Your task to perform on an android device: toggle notification dots Image 0: 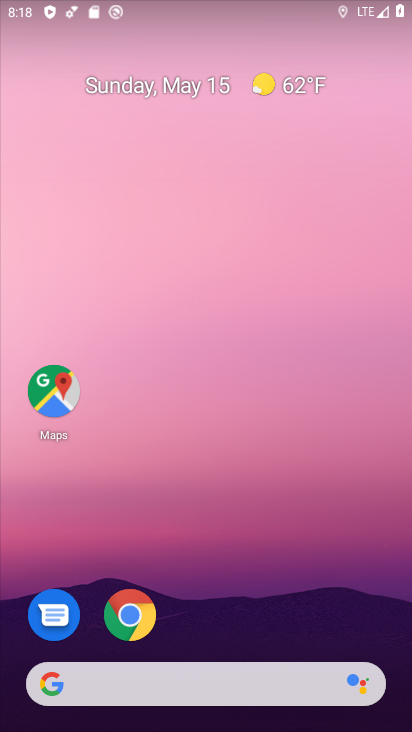
Step 0: drag from (202, 493) to (247, 71)
Your task to perform on an android device: toggle notification dots Image 1: 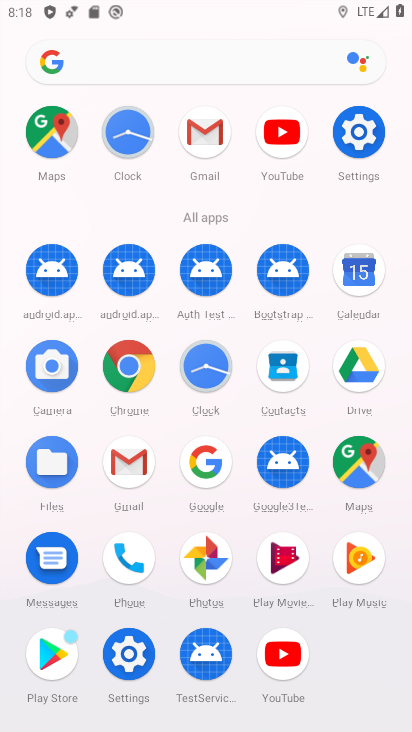
Step 1: click (359, 136)
Your task to perform on an android device: toggle notification dots Image 2: 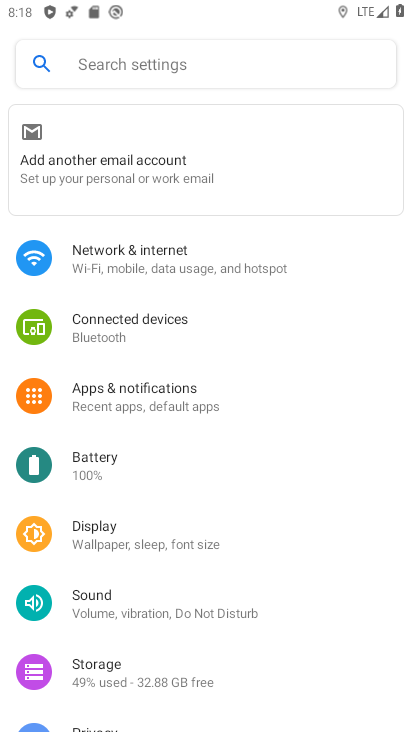
Step 2: drag from (148, 563) to (202, 208)
Your task to perform on an android device: toggle notification dots Image 3: 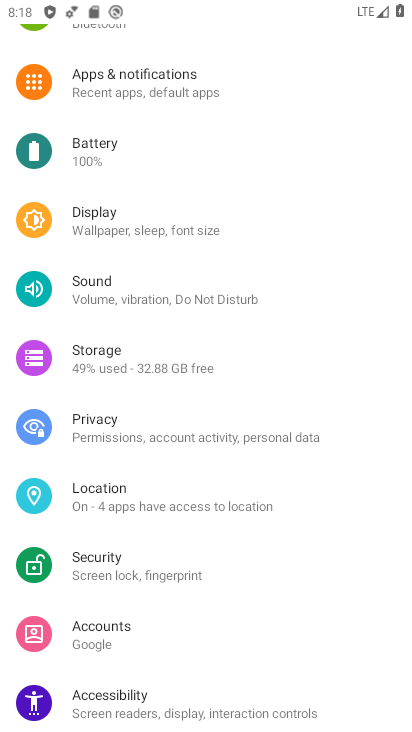
Step 3: click (200, 88)
Your task to perform on an android device: toggle notification dots Image 4: 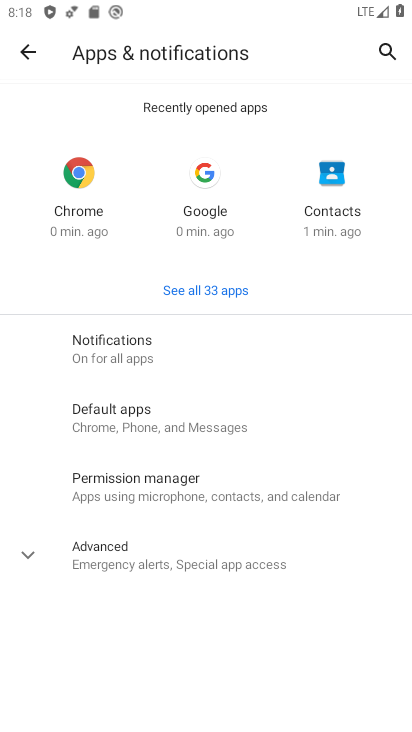
Step 4: click (156, 357)
Your task to perform on an android device: toggle notification dots Image 5: 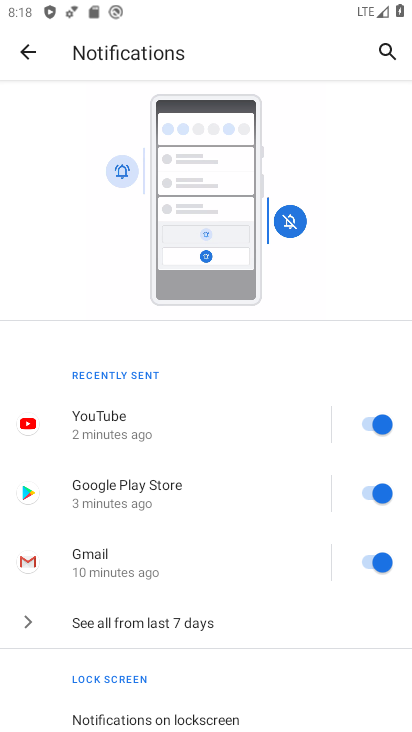
Step 5: drag from (171, 692) to (247, 245)
Your task to perform on an android device: toggle notification dots Image 6: 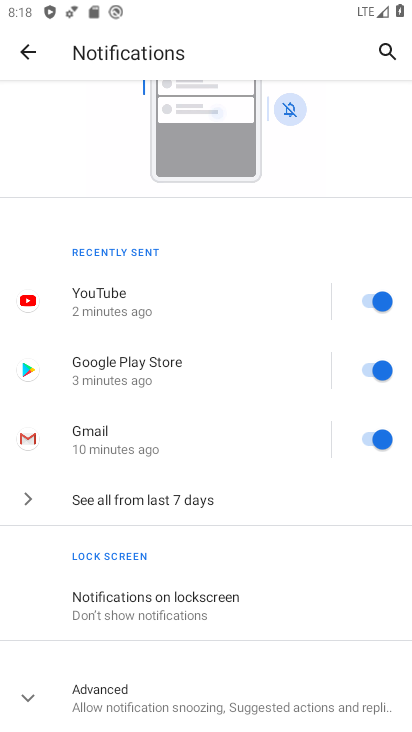
Step 6: click (136, 708)
Your task to perform on an android device: toggle notification dots Image 7: 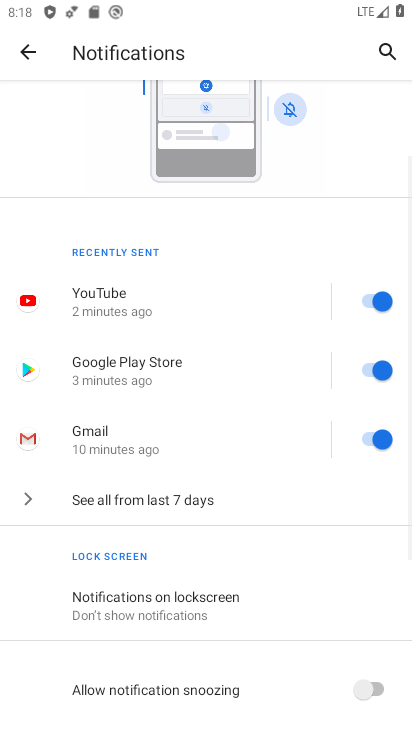
Step 7: drag from (233, 657) to (303, 171)
Your task to perform on an android device: toggle notification dots Image 8: 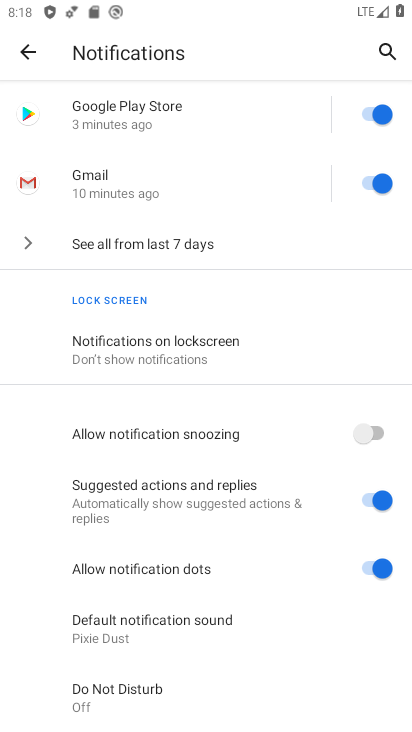
Step 8: click (377, 574)
Your task to perform on an android device: toggle notification dots Image 9: 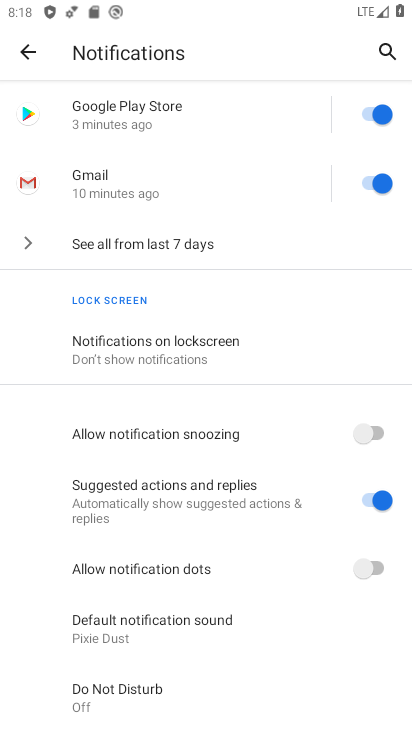
Step 9: task complete